Your task to perform on an android device: Go to CNN.com Image 0: 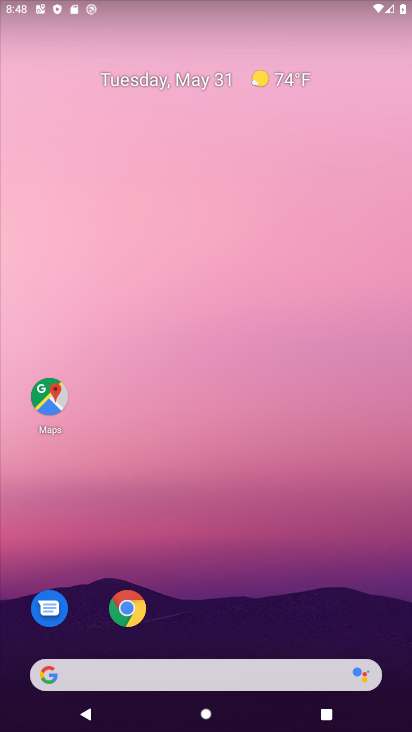
Step 0: drag from (217, 663) to (219, 284)
Your task to perform on an android device: Go to CNN.com Image 1: 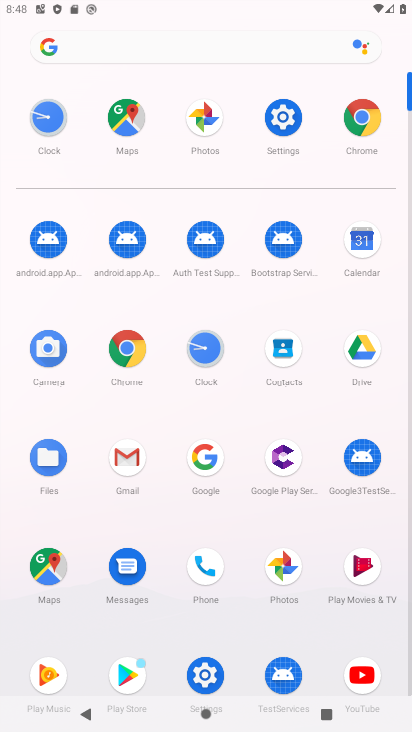
Step 1: click (142, 354)
Your task to perform on an android device: Go to CNN.com Image 2: 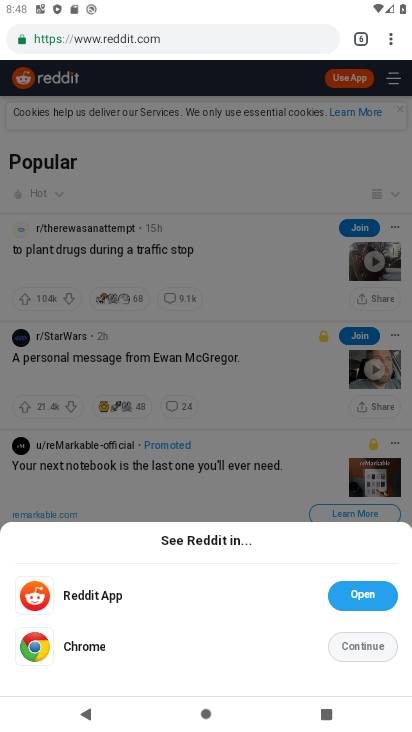
Step 2: click (357, 648)
Your task to perform on an android device: Go to CNN.com Image 3: 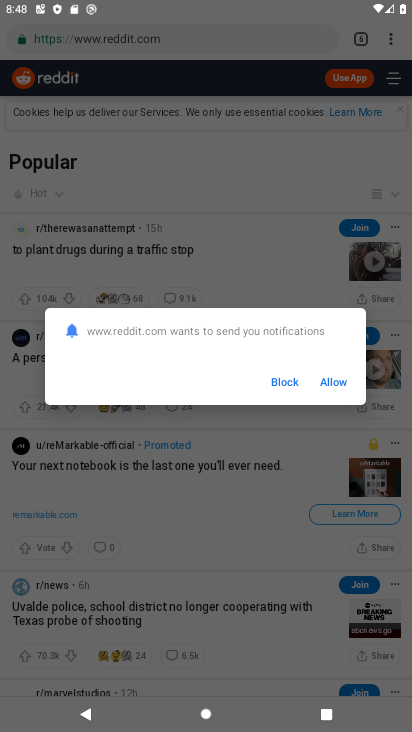
Step 3: click (345, 379)
Your task to perform on an android device: Go to CNN.com Image 4: 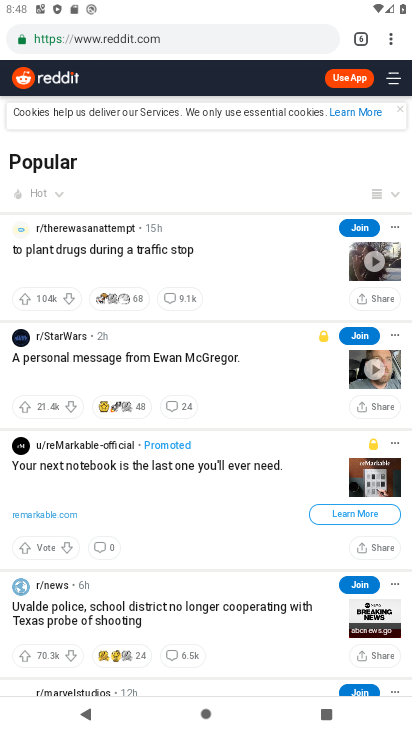
Step 4: click (358, 28)
Your task to perform on an android device: Go to CNN.com Image 5: 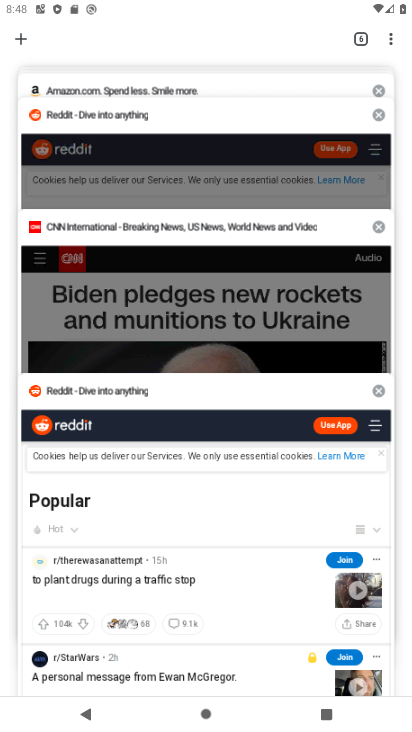
Step 5: click (156, 260)
Your task to perform on an android device: Go to CNN.com Image 6: 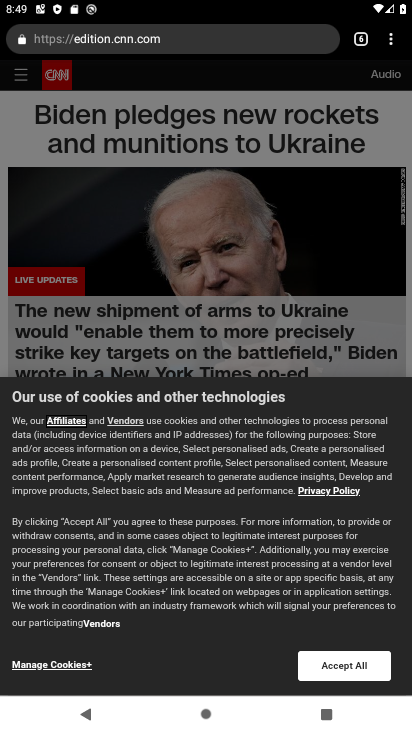
Step 6: task complete